Your task to perform on an android device: Show me the alarms in the clock app Image 0: 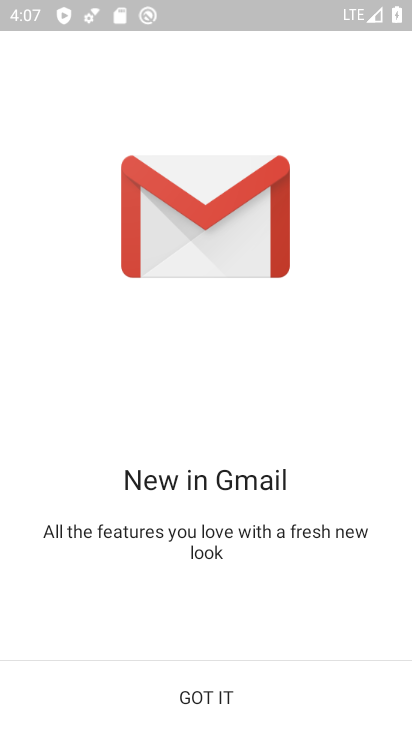
Step 0: press home button
Your task to perform on an android device: Show me the alarms in the clock app Image 1: 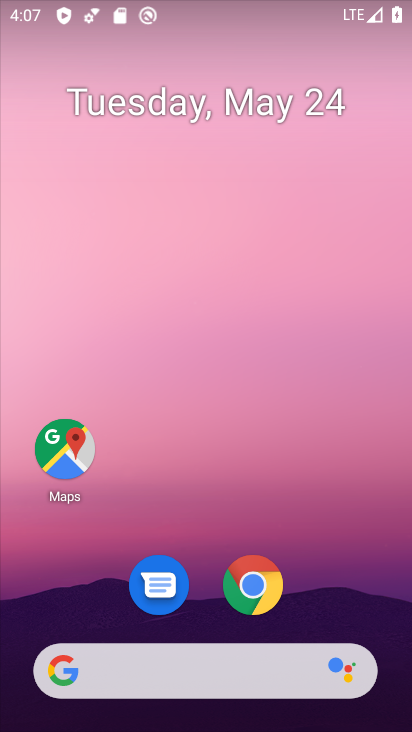
Step 1: drag from (272, 495) to (240, 40)
Your task to perform on an android device: Show me the alarms in the clock app Image 2: 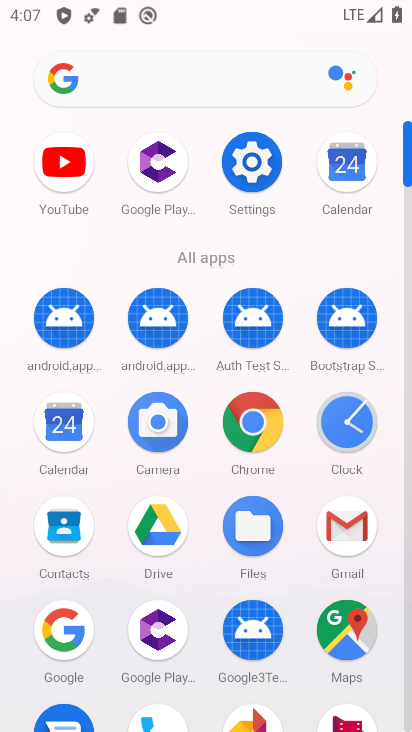
Step 2: click (344, 415)
Your task to perform on an android device: Show me the alarms in the clock app Image 3: 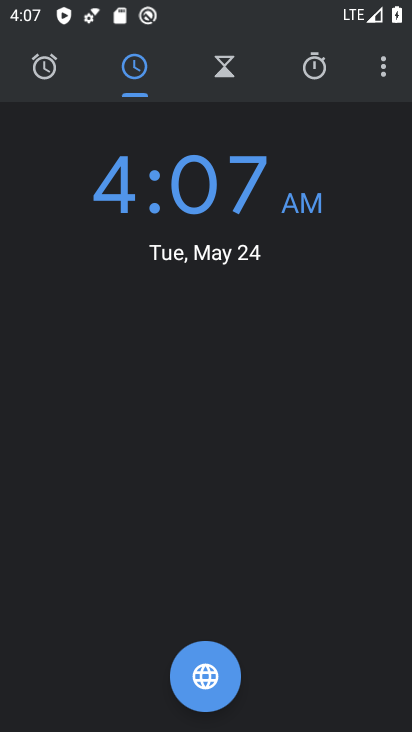
Step 3: click (55, 69)
Your task to perform on an android device: Show me the alarms in the clock app Image 4: 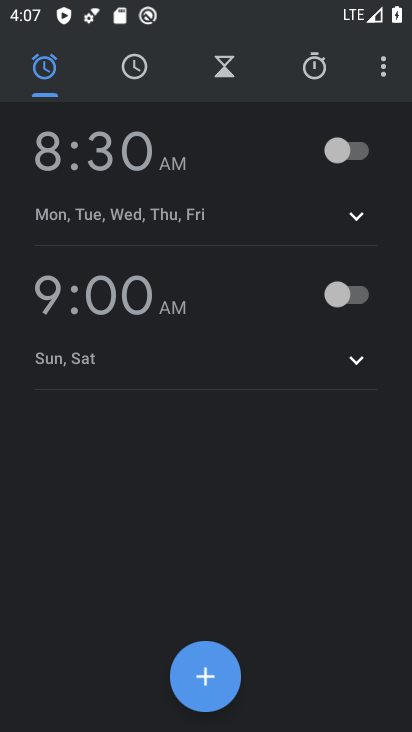
Step 4: task complete